Your task to perform on an android device: Is it going to rain tomorrow? Image 0: 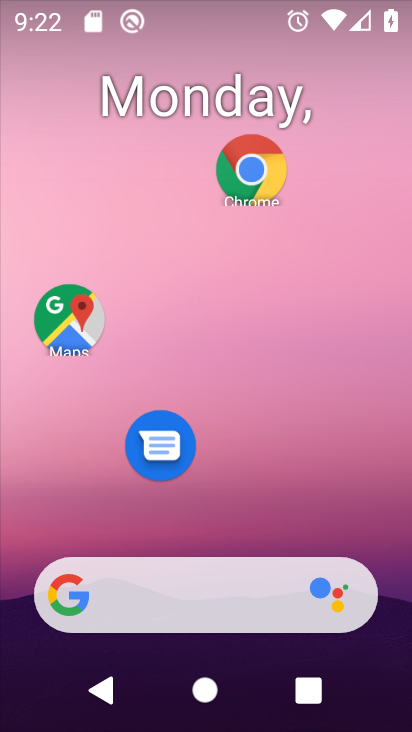
Step 0: press home button
Your task to perform on an android device: Is it going to rain tomorrow? Image 1: 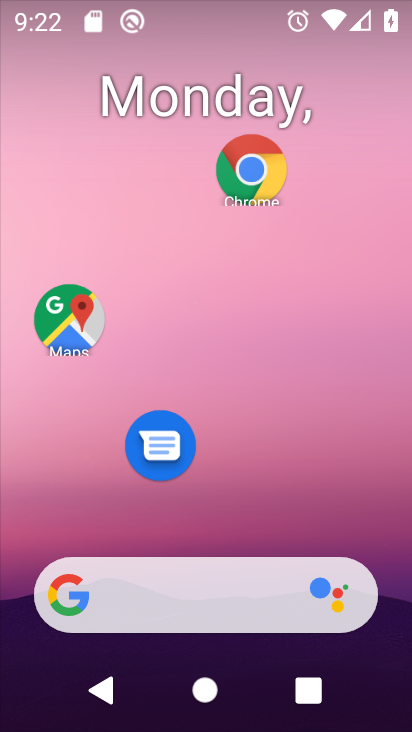
Step 1: drag from (9, 240) to (385, 320)
Your task to perform on an android device: Is it going to rain tomorrow? Image 2: 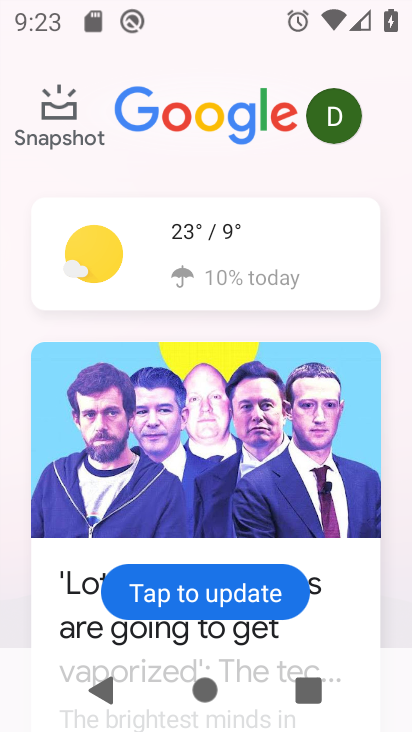
Step 2: click (249, 232)
Your task to perform on an android device: Is it going to rain tomorrow? Image 3: 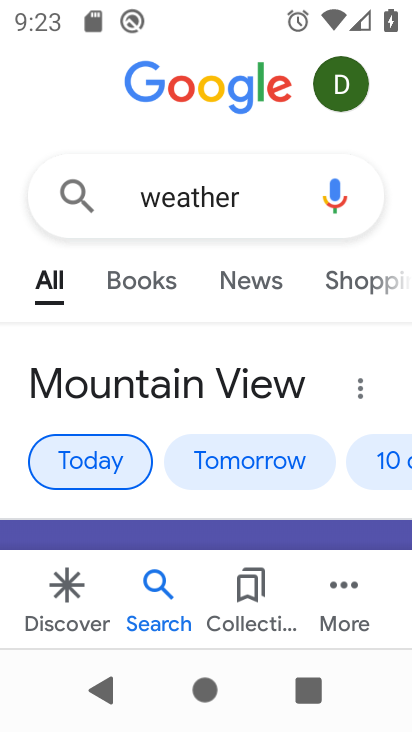
Step 3: click (245, 455)
Your task to perform on an android device: Is it going to rain tomorrow? Image 4: 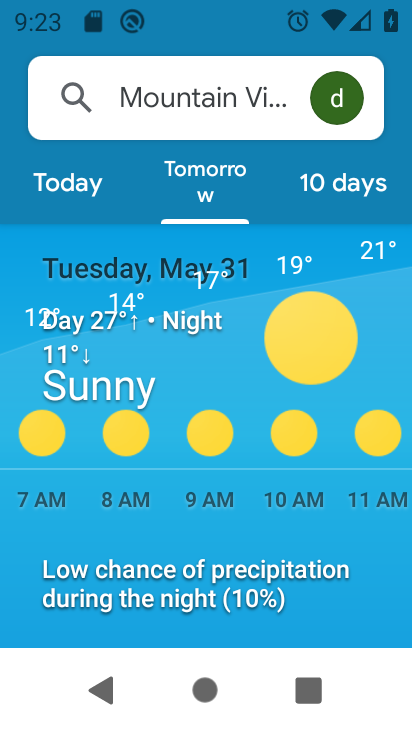
Step 4: task complete